Your task to perform on an android device: toggle airplane mode Image 0: 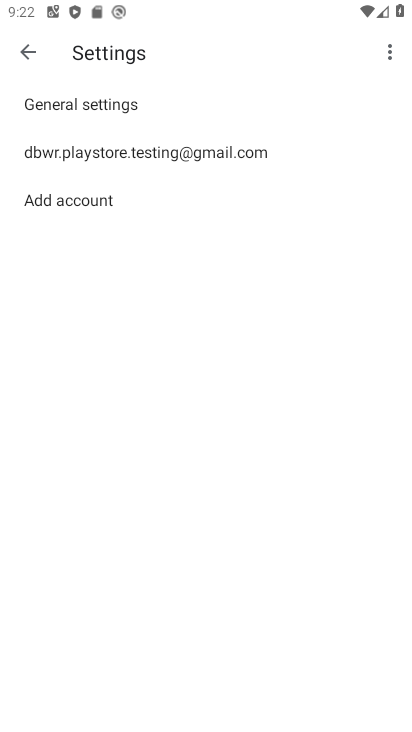
Step 0: press home button
Your task to perform on an android device: toggle airplane mode Image 1: 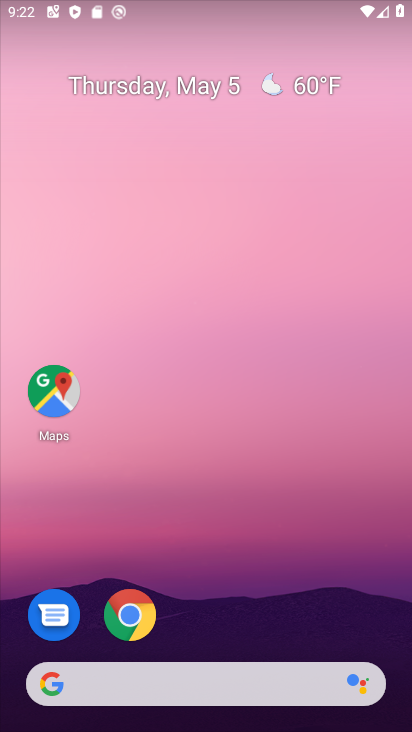
Step 1: drag from (243, 606) to (227, 84)
Your task to perform on an android device: toggle airplane mode Image 2: 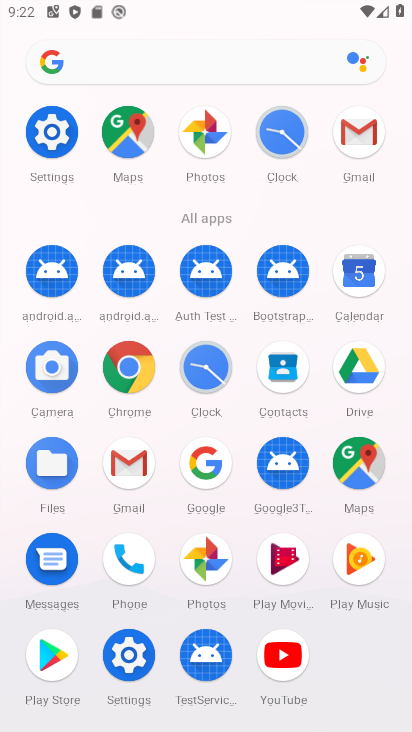
Step 2: click (48, 136)
Your task to perform on an android device: toggle airplane mode Image 3: 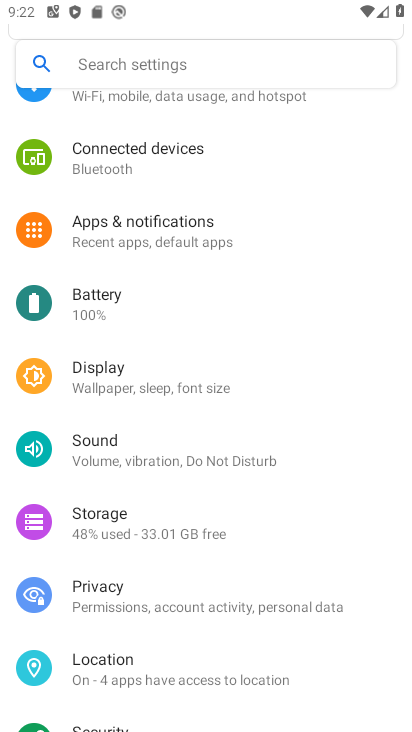
Step 3: drag from (136, 268) to (157, 592)
Your task to perform on an android device: toggle airplane mode Image 4: 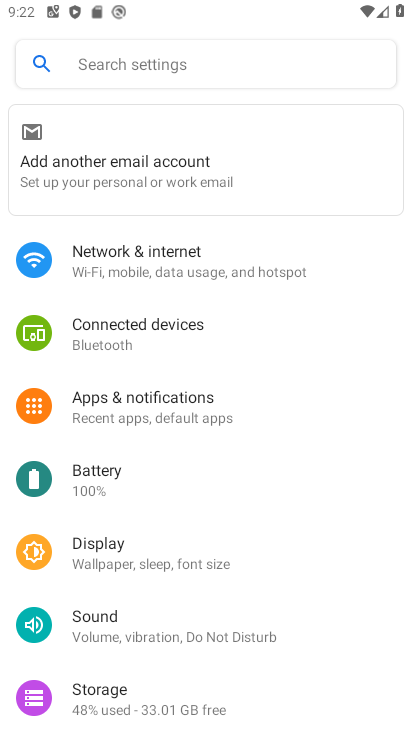
Step 4: click (135, 243)
Your task to perform on an android device: toggle airplane mode Image 5: 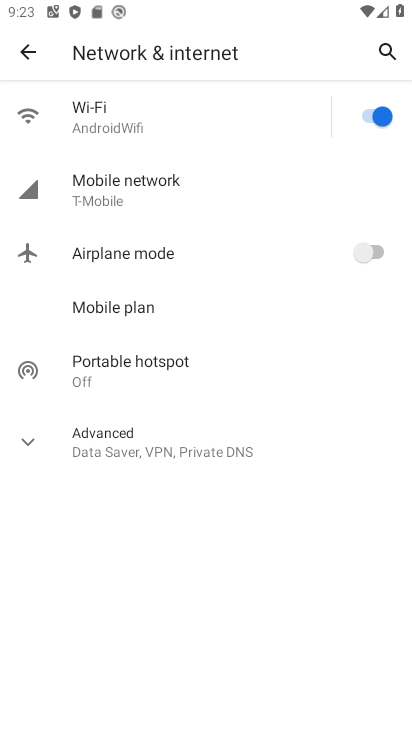
Step 5: click (375, 254)
Your task to perform on an android device: toggle airplane mode Image 6: 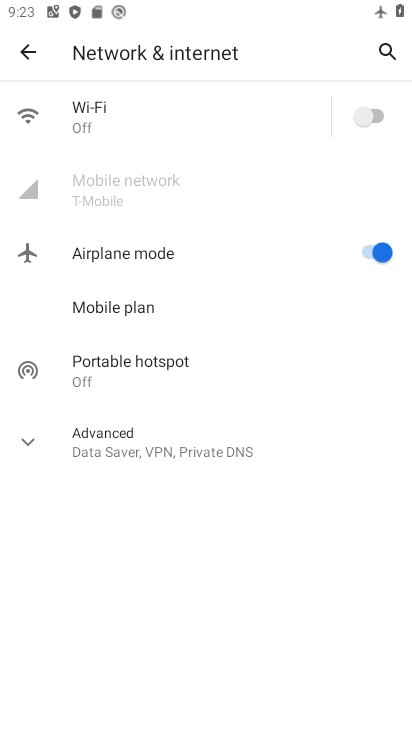
Step 6: task complete